Your task to perform on an android device: allow cookies in the chrome app Image 0: 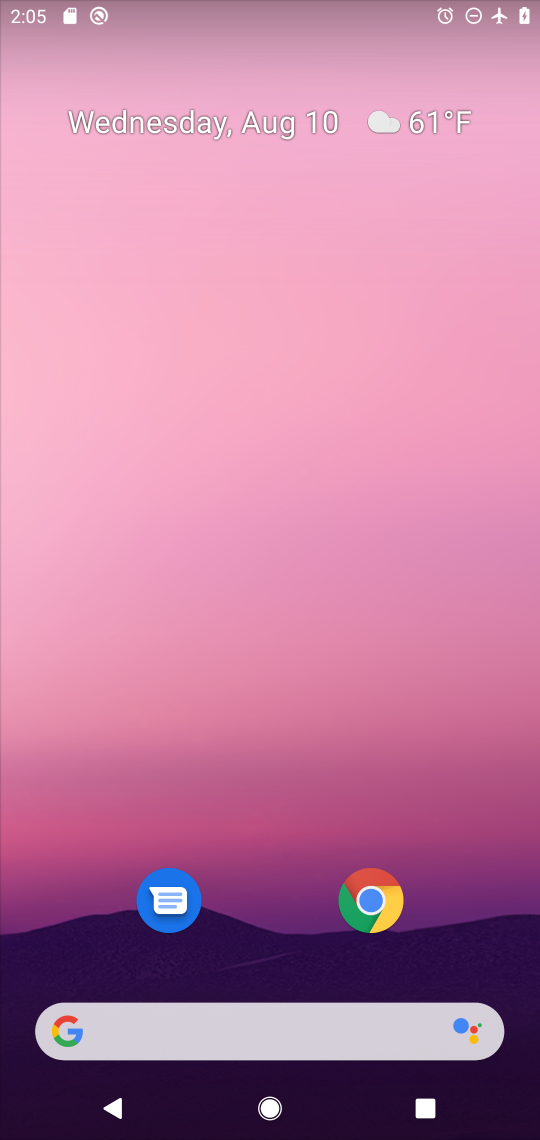
Step 0: click (371, 893)
Your task to perform on an android device: allow cookies in the chrome app Image 1: 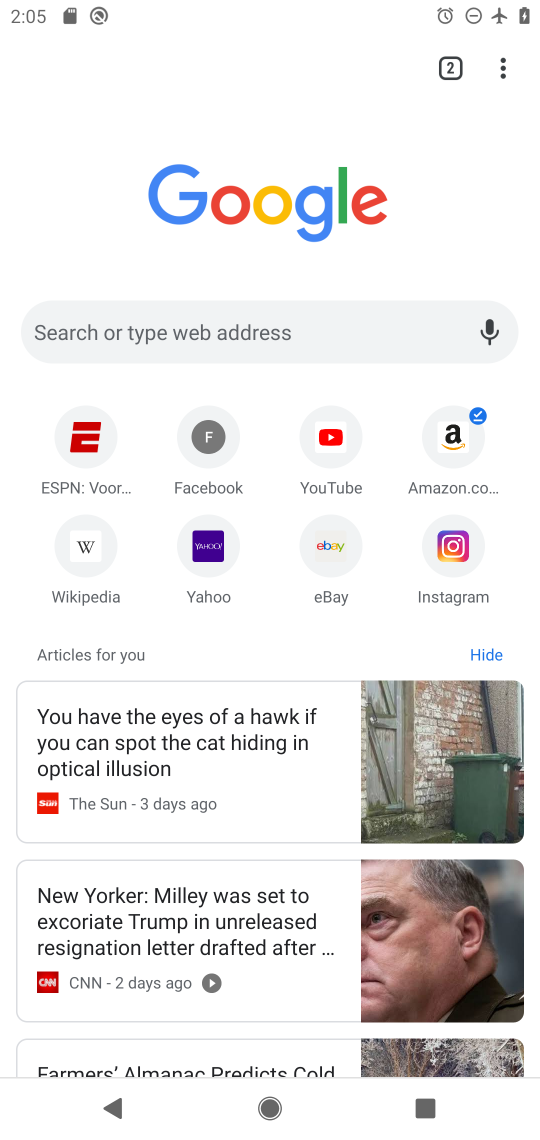
Step 1: click (501, 73)
Your task to perform on an android device: allow cookies in the chrome app Image 2: 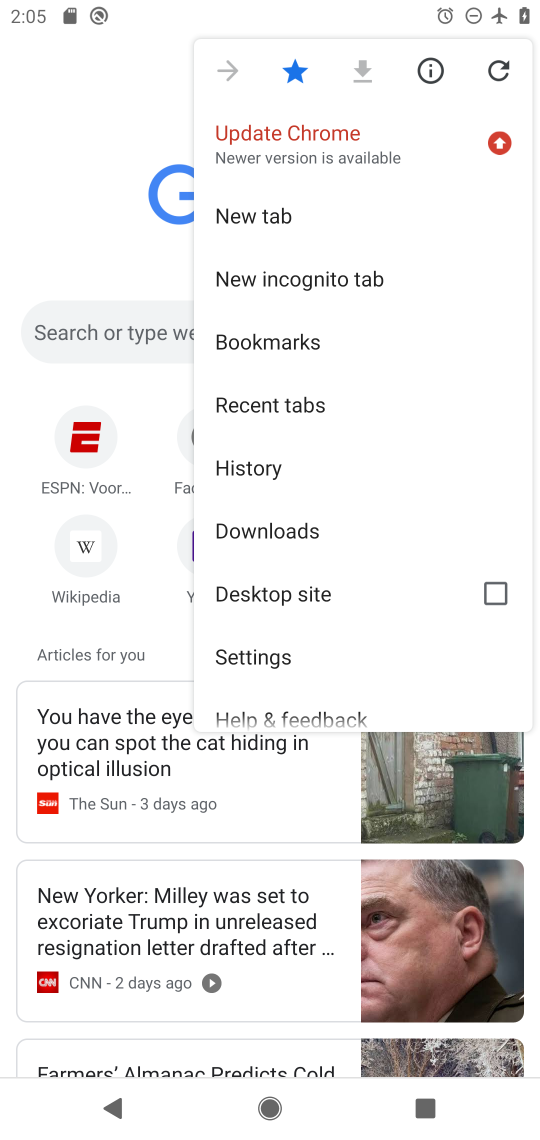
Step 2: click (302, 658)
Your task to perform on an android device: allow cookies in the chrome app Image 3: 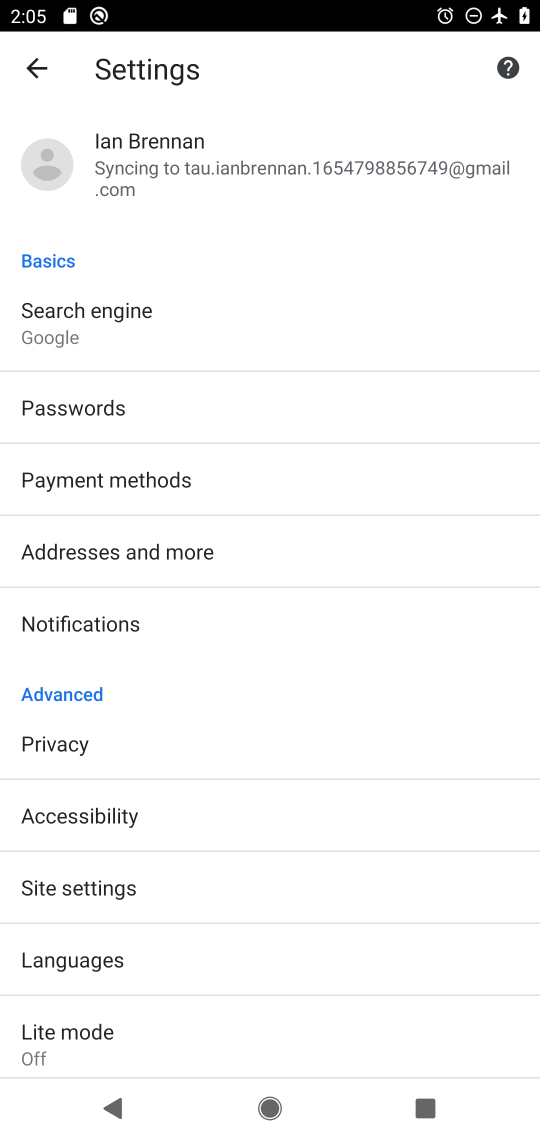
Step 3: click (175, 885)
Your task to perform on an android device: allow cookies in the chrome app Image 4: 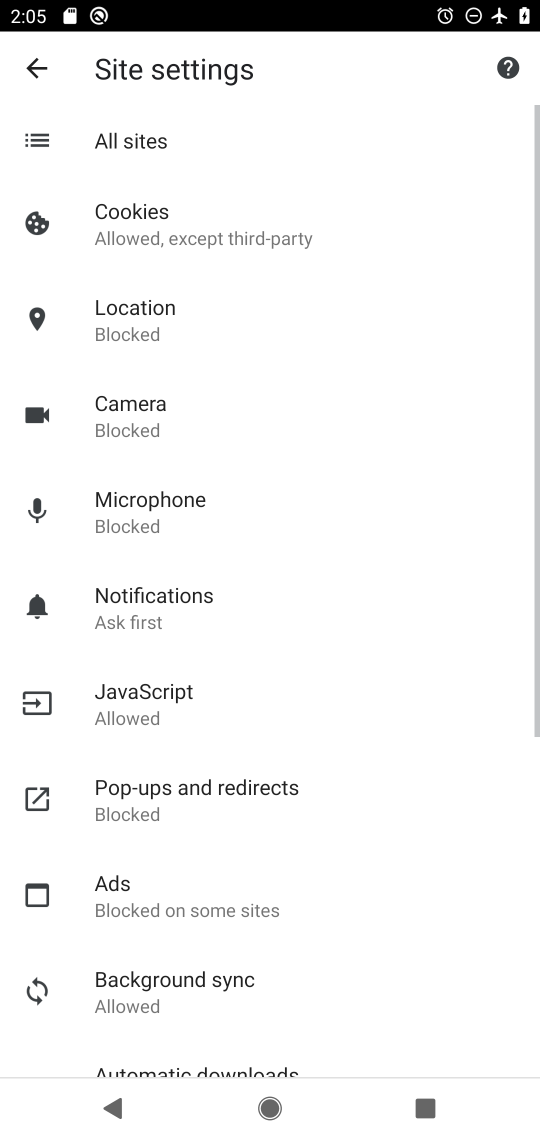
Step 4: click (241, 233)
Your task to perform on an android device: allow cookies in the chrome app Image 5: 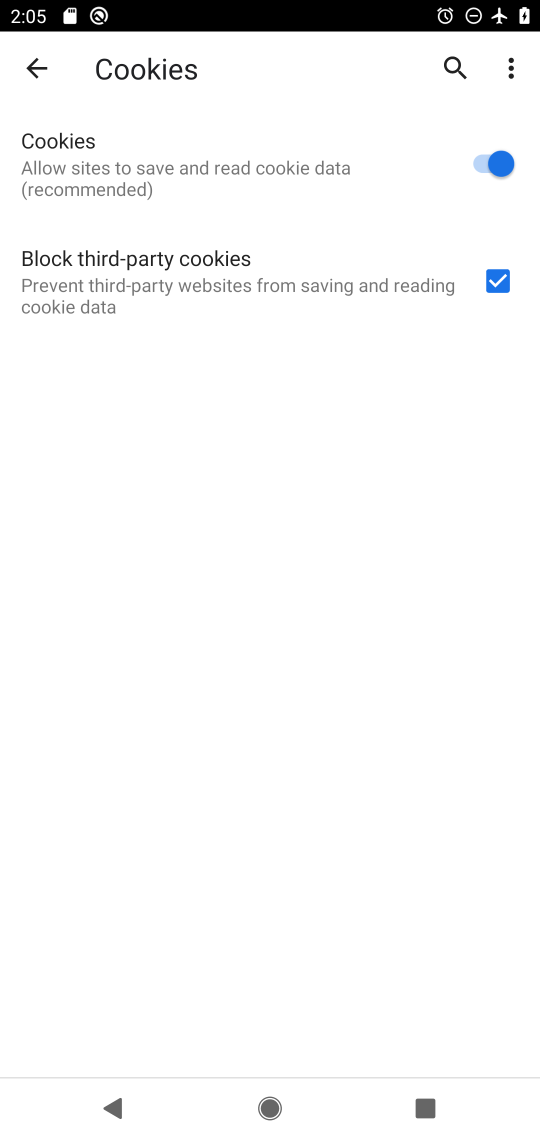
Step 5: task complete